Your task to perform on an android device: toggle sleep mode Image 0: 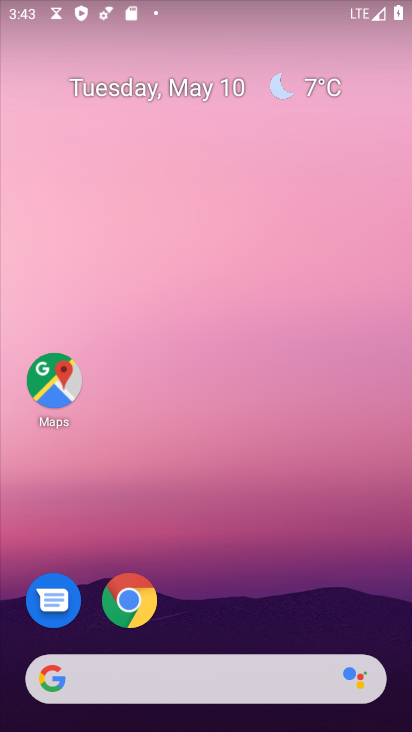
Step 0: click (127, 601)
Your task to perform on an android device: toggle sleep mode Image 1: 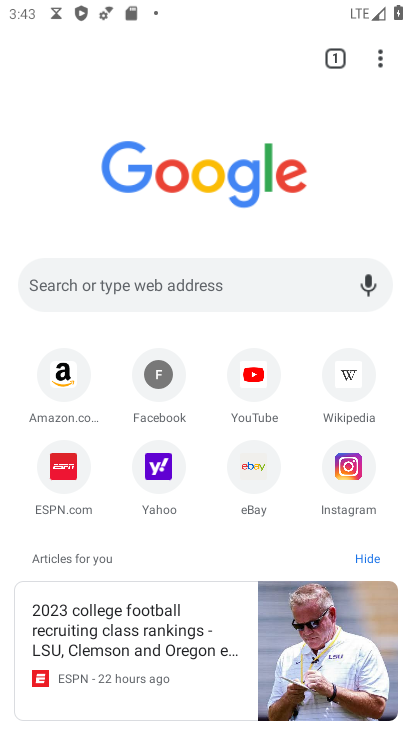
Step 1: click (380, 49)
Your task to perform on an android device: toggle sleep mode Image 2: 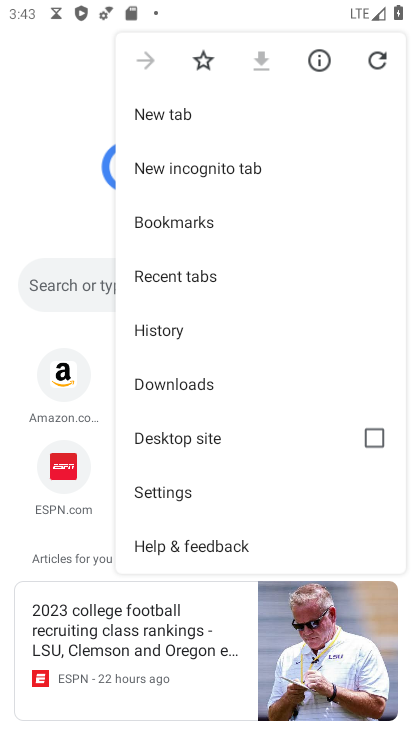
Step 2: click (222, 478)
Your task to perform on an android device: toggle sleep mode Image 3: 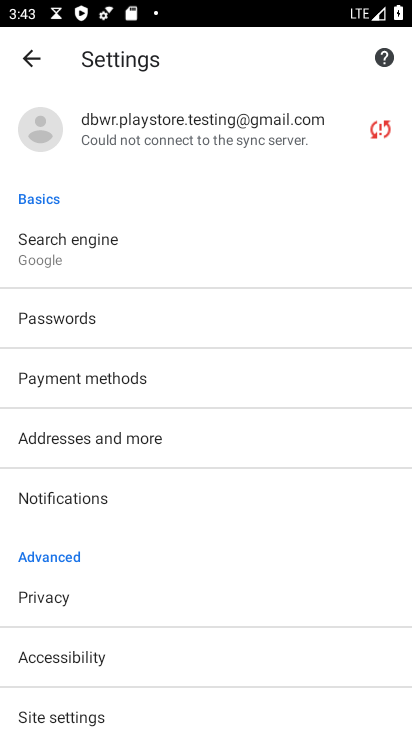
Step 3: drag from (215, 556) to (267, 214)
Your task to perform on an android device: toggle sleep mode Image 4: 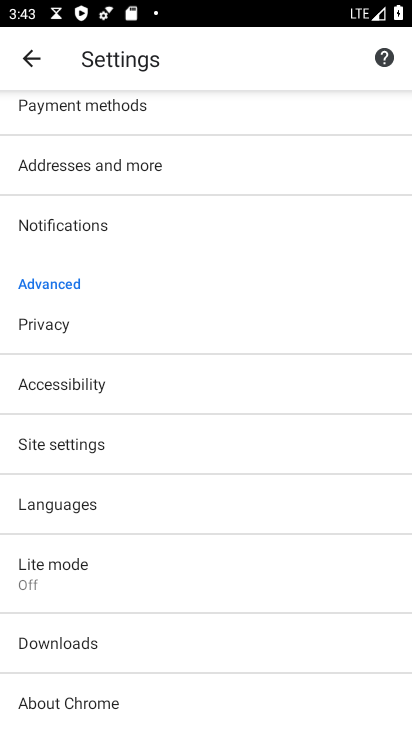
Step 4: drag from (229, 648) to (275, 369)
Your task to perform on an android device: toggle sleep mode Image 5: 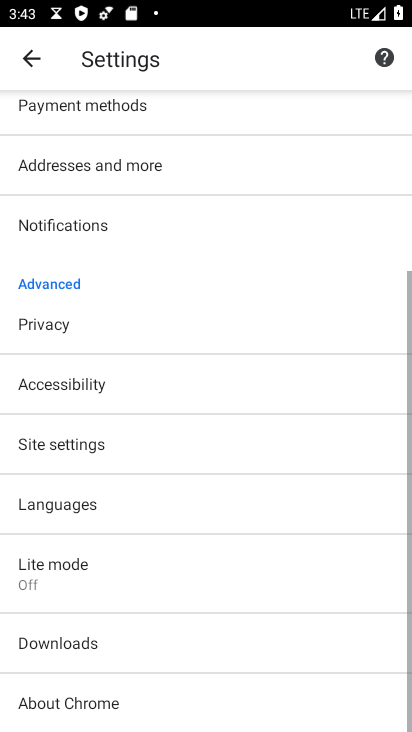
Step 5: drag from (234, 643) to (307, 248)
Your task to perform on an android device: toggle sleep mode Image 6: 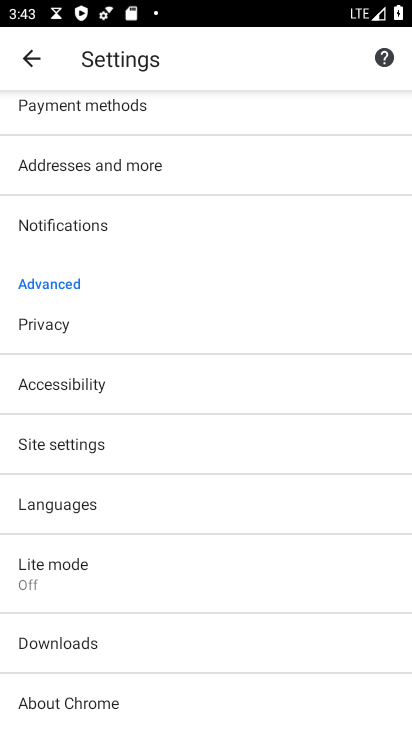
Step 6: press home button
Your task to perform on an android device: toggle sleep mode Image 7: 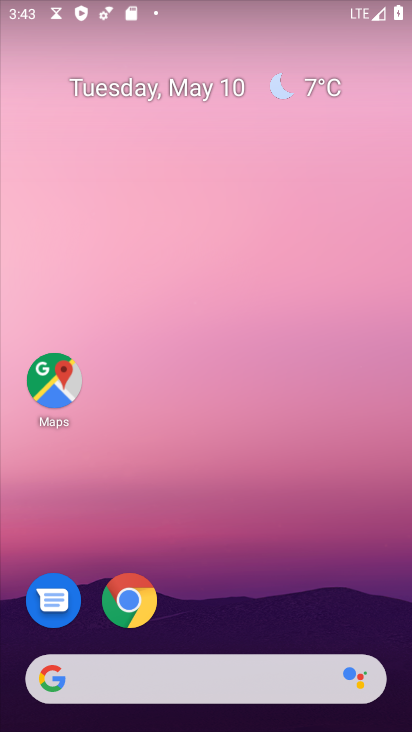
Step 7: click (195, 670)
Your task to perform on an android device: toggle sleep mode Image 8: 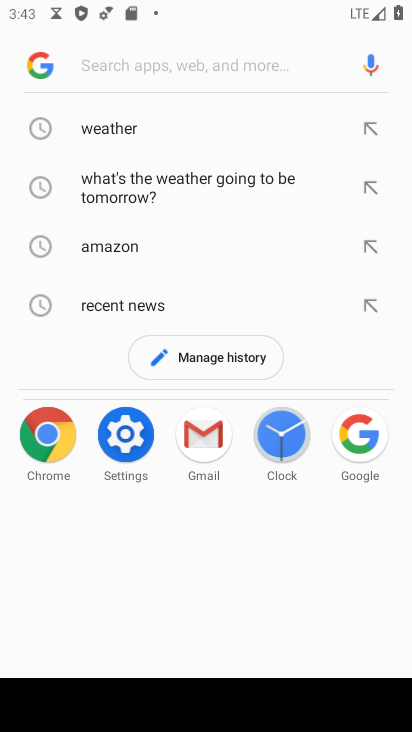
Step 8: task complete